Your task to perform on an android device: turn on priority inbox in the gmail app Image 0: 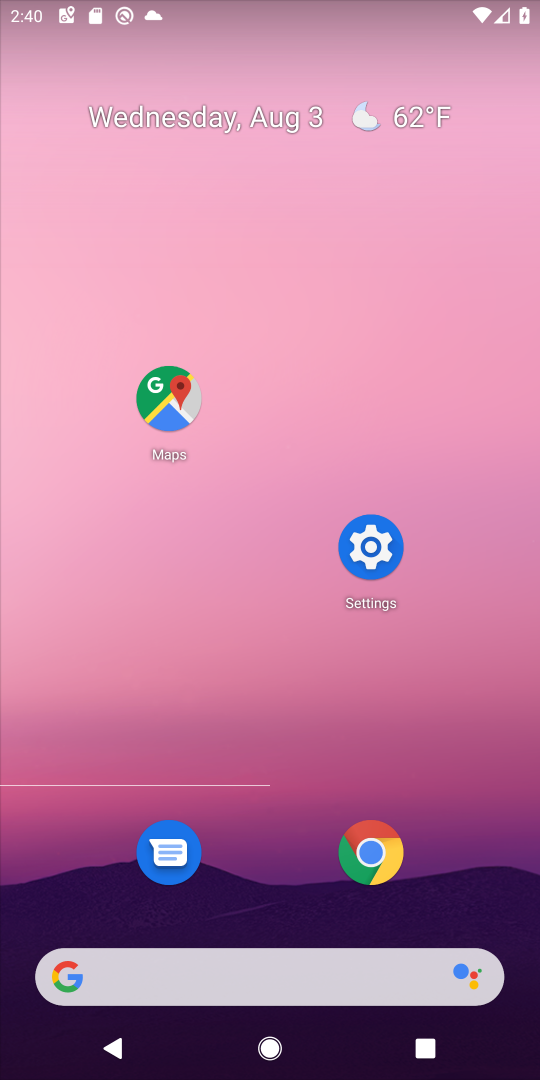
Step 0: press home button
Your task to perform on an android device: turn on priority inbox in the gmail app Image 1: 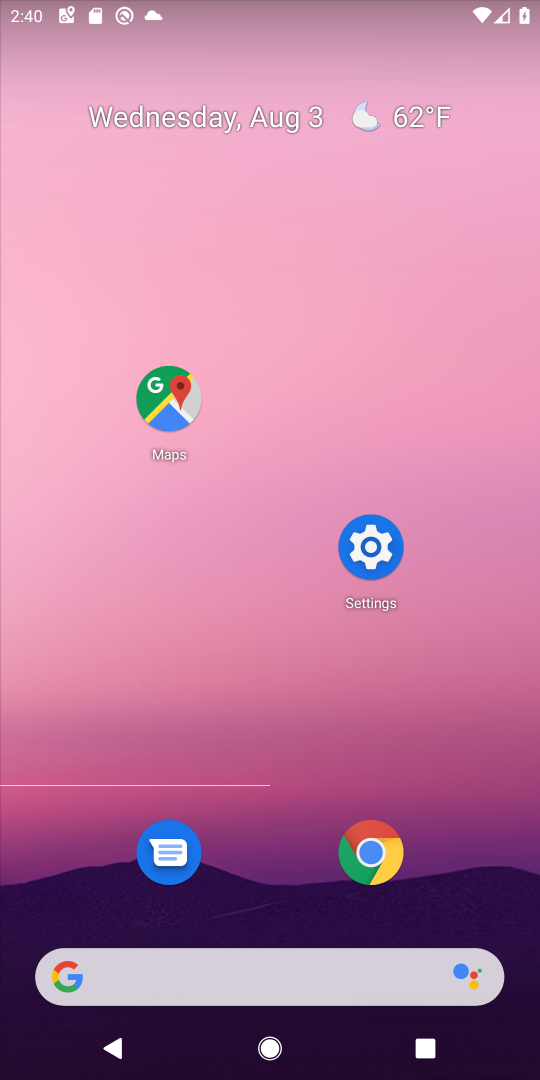
Step 1: drag from (247, 966) to (398, 117)
Your task to perform on an android device: turn on priority inbox in the gmail app Image 2: 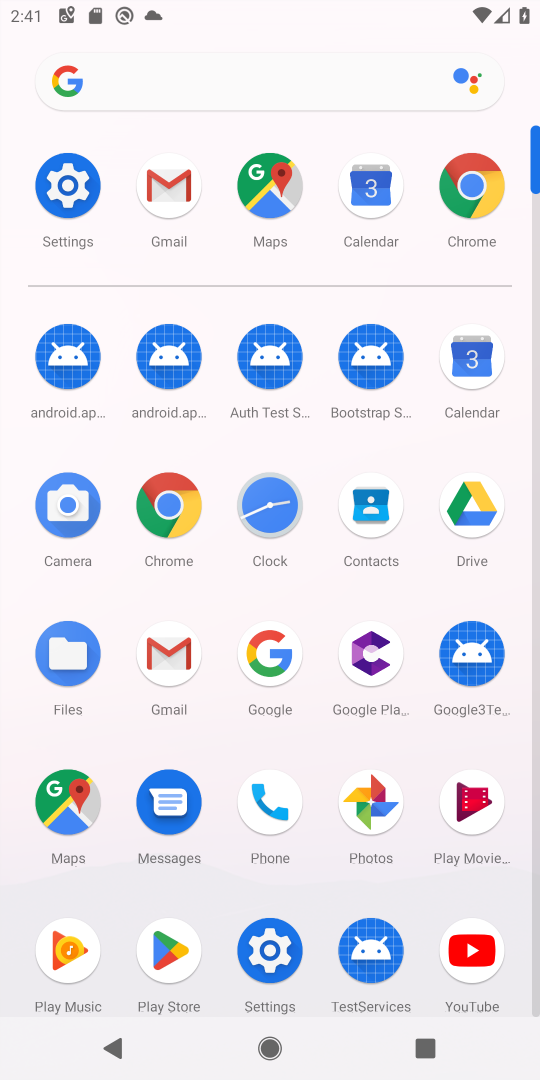
Step 2: click (161, 184)
Your task to perform on an android device: turn on priority inbox in the gmail app Image 3: 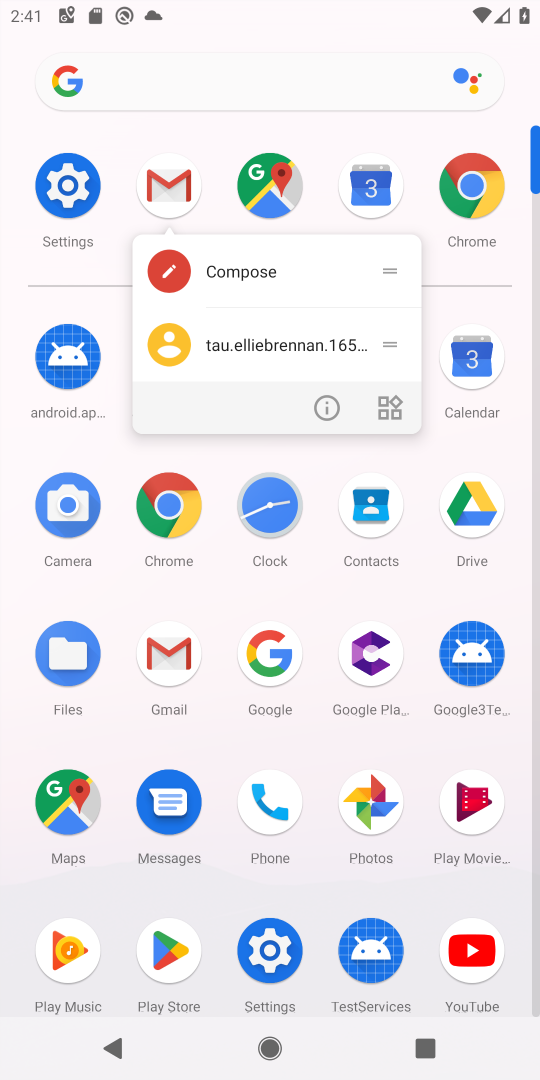
Step 3: click (161, 186)
Your task to perform on an android device: turn on priority inbox in the gmail app Image 4: 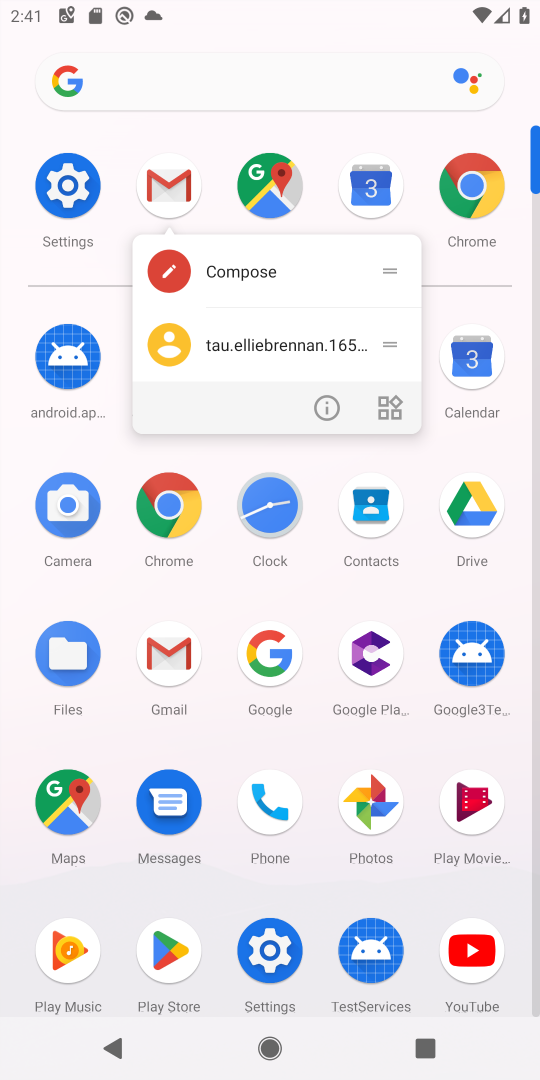
Step 4: click (161, 185)
Your task to perform on an android device: turn on priority inbox in the gmail app Image 5: 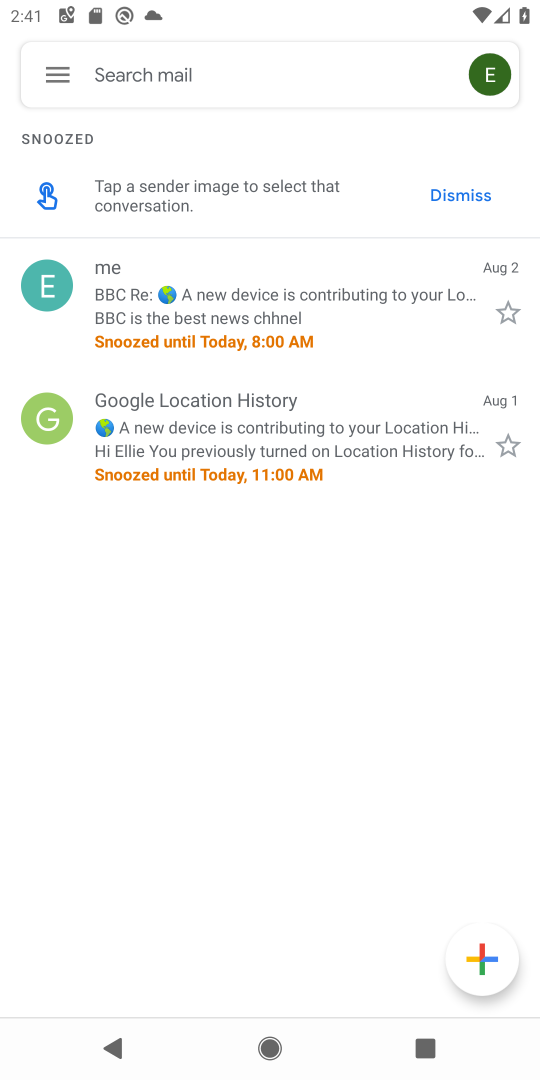
Step 5: click (59, 71)
Your task to perform on an android device: turn on priority inbox in the gmail app Image 6: 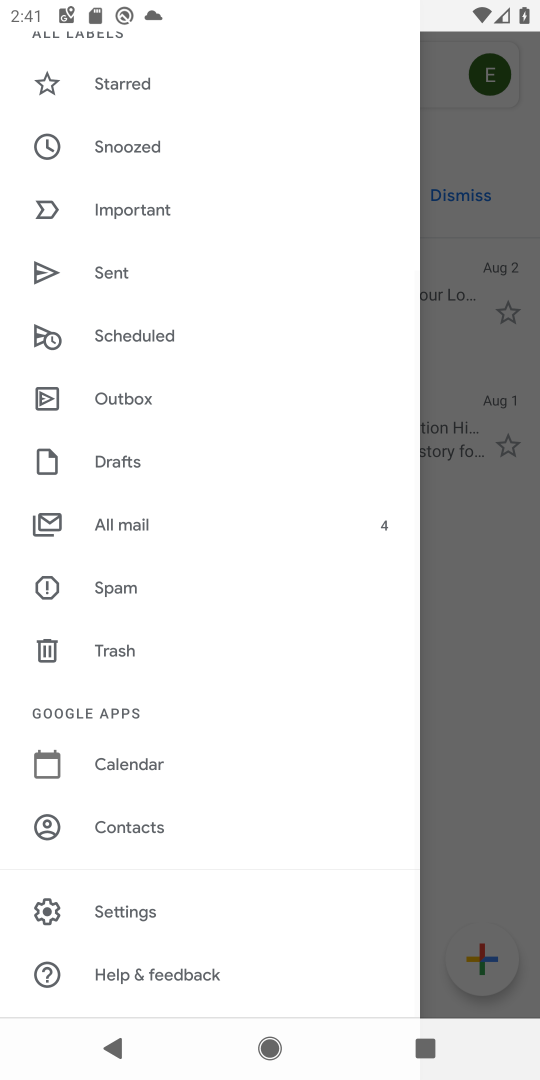
Step 6: click (131, 911)
Your task to perform on an android device: turn on priority inbox in the gmail app Image 7: 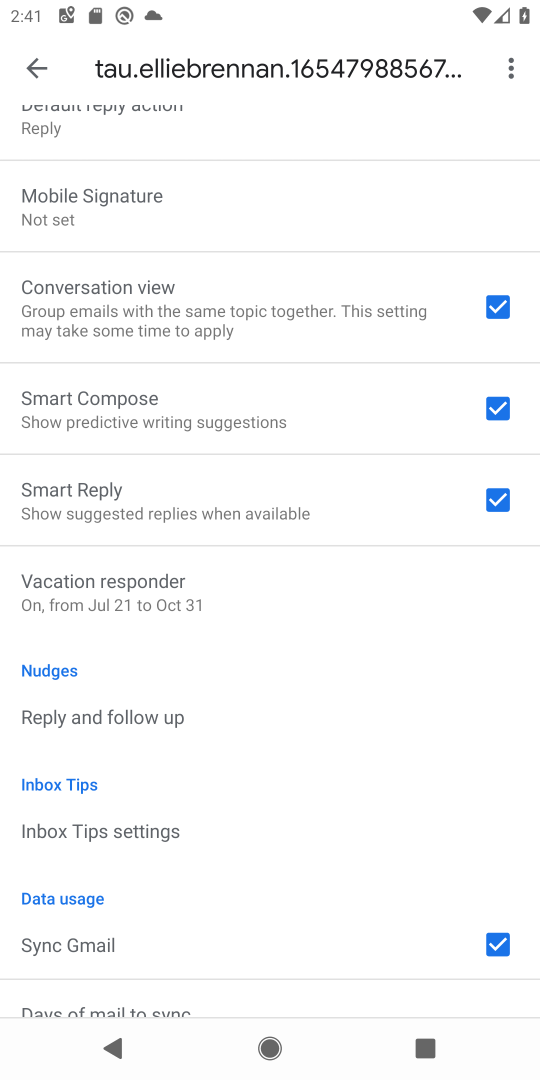
Step 7: drag from (319, 203) to (279, 919)
Your task to perform on an android device: turn on priority inbox in the gmail app Image 8: 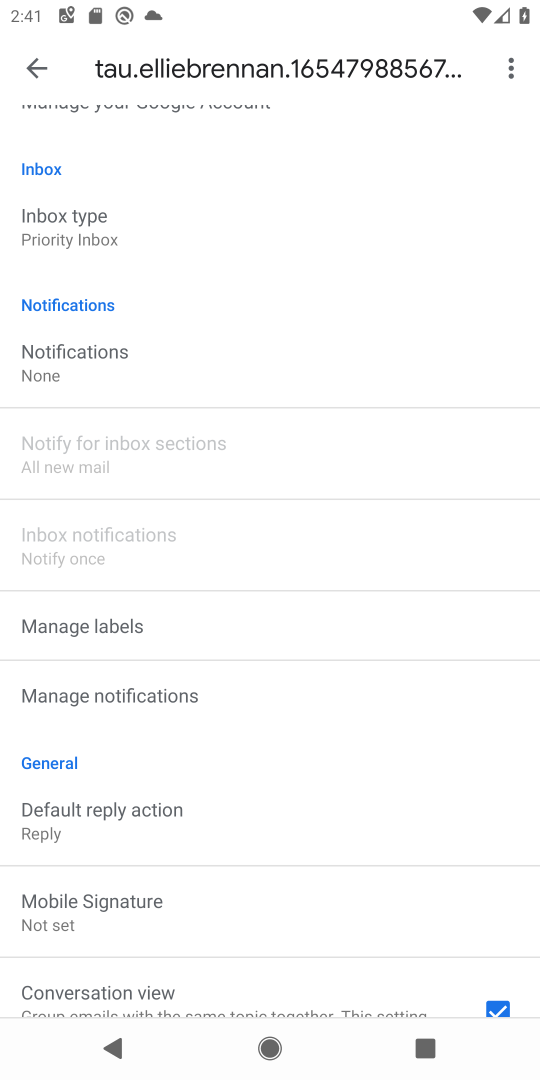
Step 8: click (69, 225)
Your task to perform on an android device: turn on priority inbox in the gmail app Image 9: 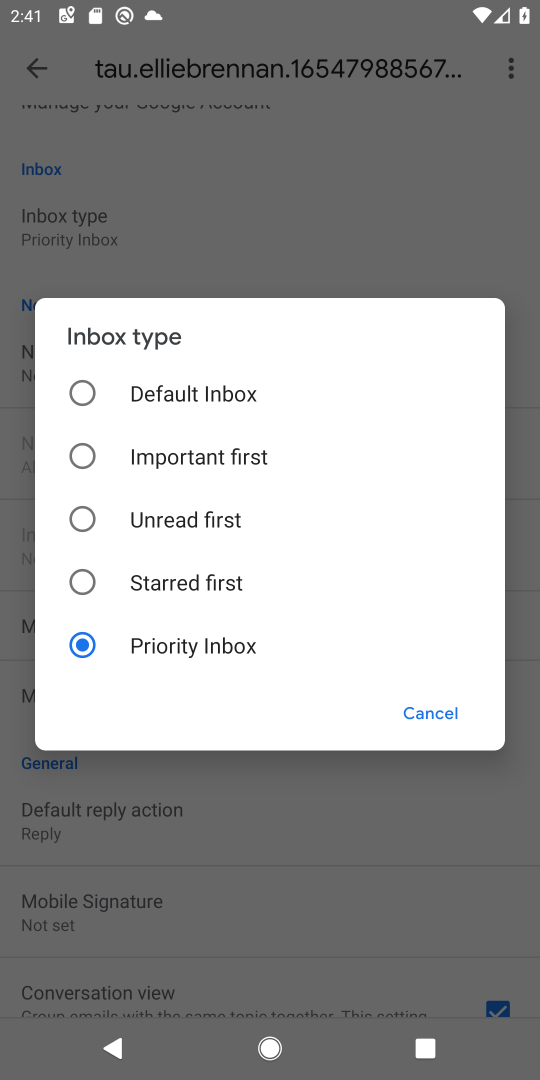
Step 9: task complete